Your task to perform on an android device: check storage Image 0: 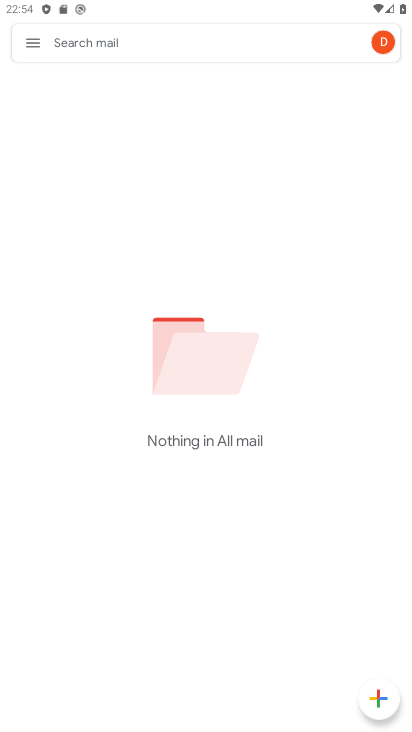
Step 0: press home button
Your task to perform on an android device: check storage Image 1: 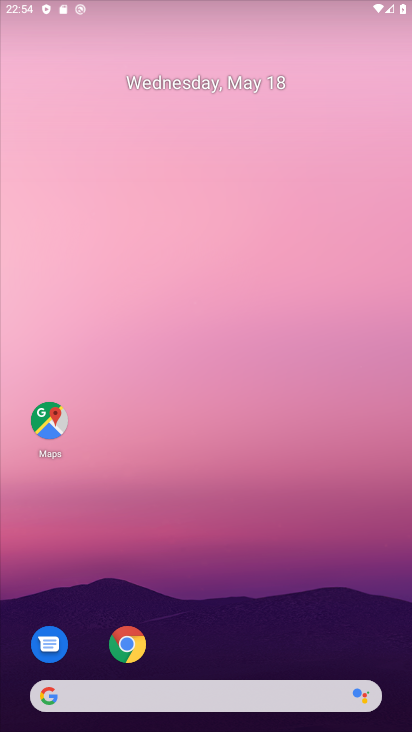
Step 1: drag from (290, 506) to (274, 81)
Your task to perform on an android device: check storage Image 2: 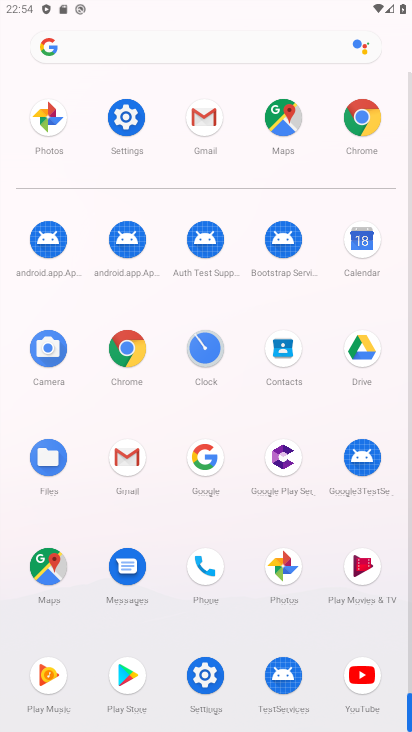
Step 2: click (129, 118)
Your task to perform on an android device: check storage Image 3: 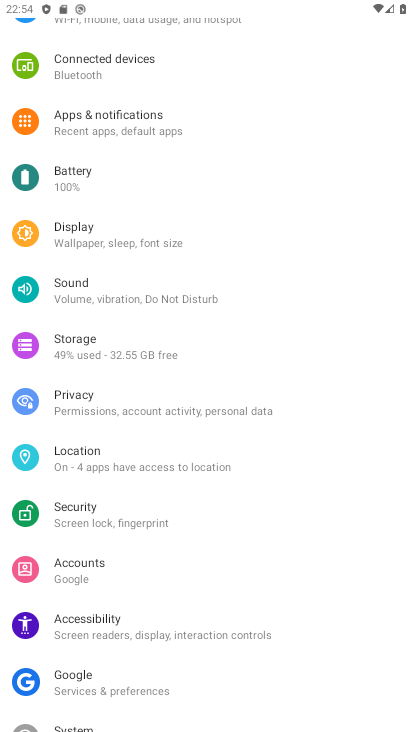
Step 3: click (143, 341)
Your task to perform on an android device: check storage Image 4: 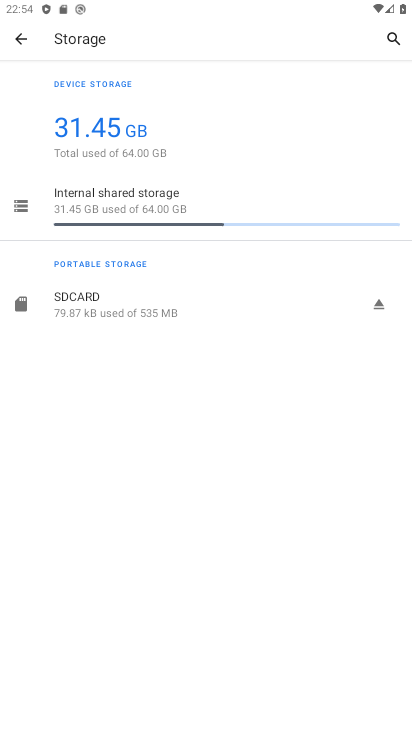
Step 4: task complete